Your task to perform on an android device: toggle show notifications on the lock screen Image 0: 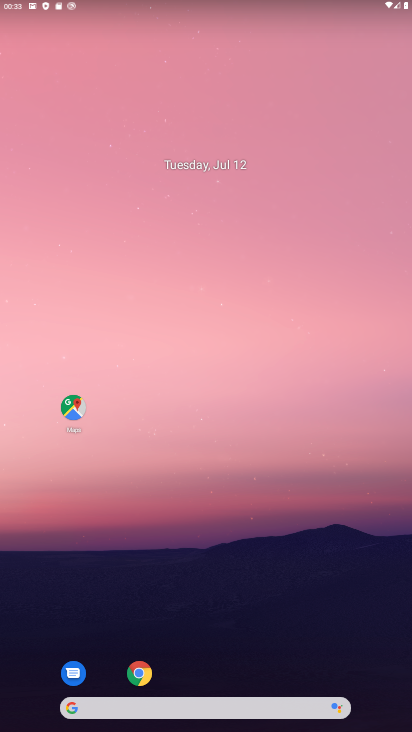
Step 0: press home button
Your task to perform on an android device: toggle show notifications on the lock screen Image 1: 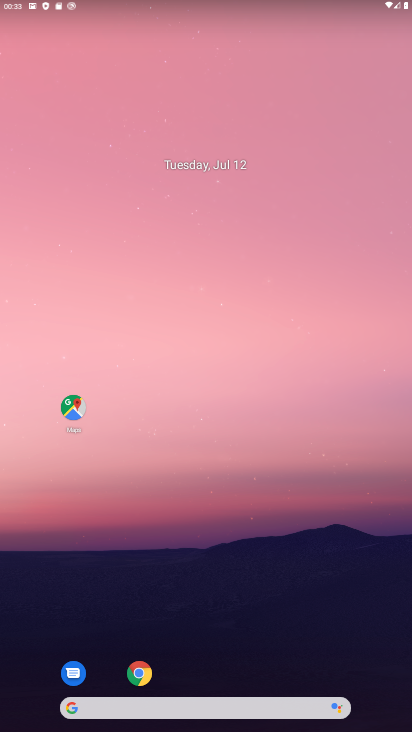
Step 1: drag from (267, 538) to (307, 83)
Your task to perform on an android device: toggle show notifications on the lock screen Image 2: 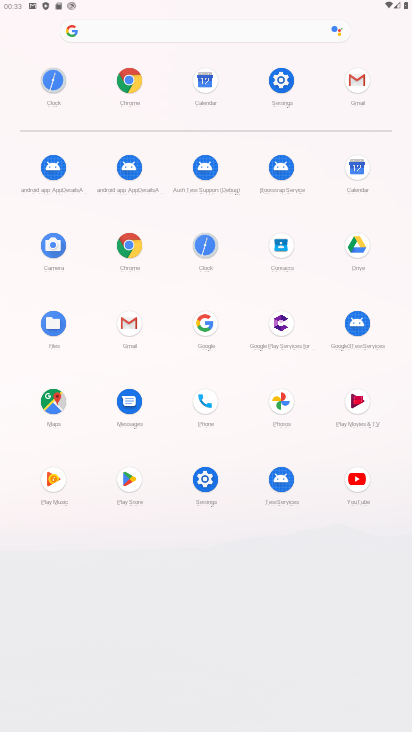
Step 2: click (277, 82)
Your task to perform on an android device: toggle show notifications on the lock screen Image 3: 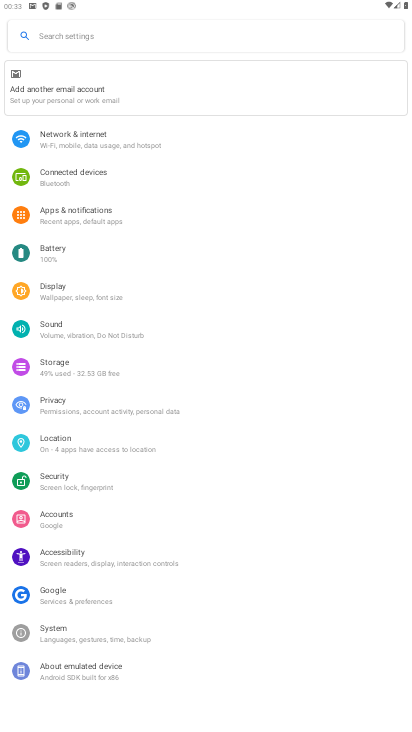
Step 3: click (67, 212)
Your task to perform on an android device: toggle show notifications on the lock screen Image 4: 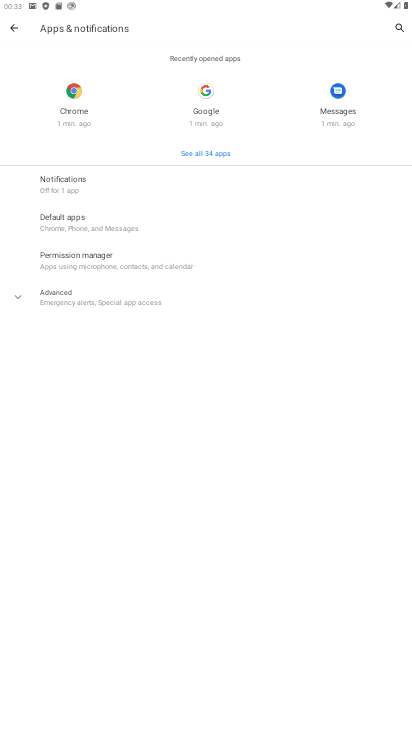
Step 4: click (47, 179)
Your task to perform on an android device: toggle show notifications on the lock screen Image 5: 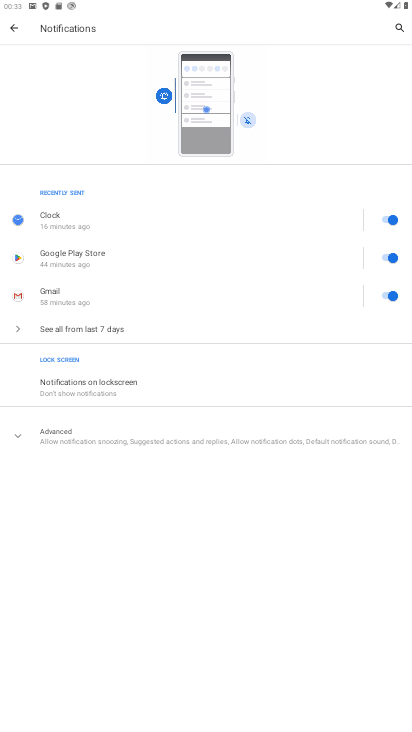
Step 5: click (100, 390)
Your task to perform on an android device: toggle show notifications on the lock screen Image 6: 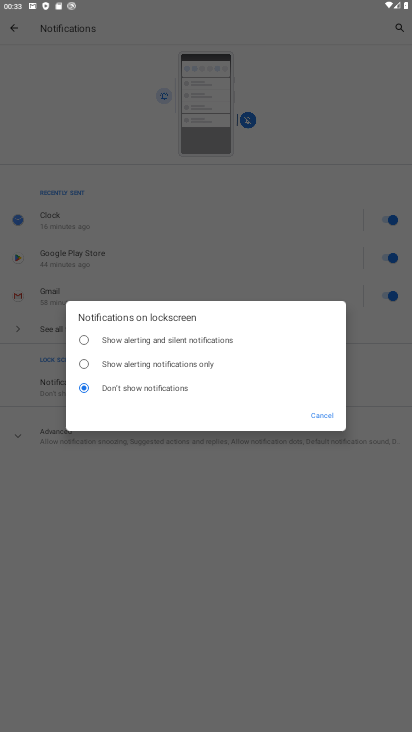
Step 6: click (82, 343)
Your task to perform on an android device: toggle show notifications on the lock screen Image 7: 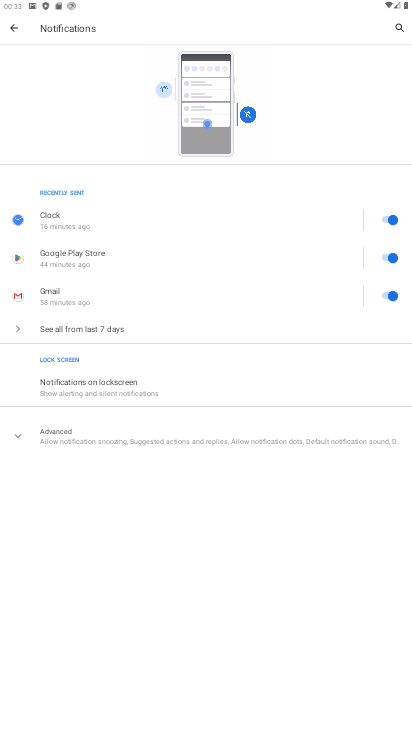
Step 7: task complete